Your task to perform on an android device: Open wifi settings Image 0: 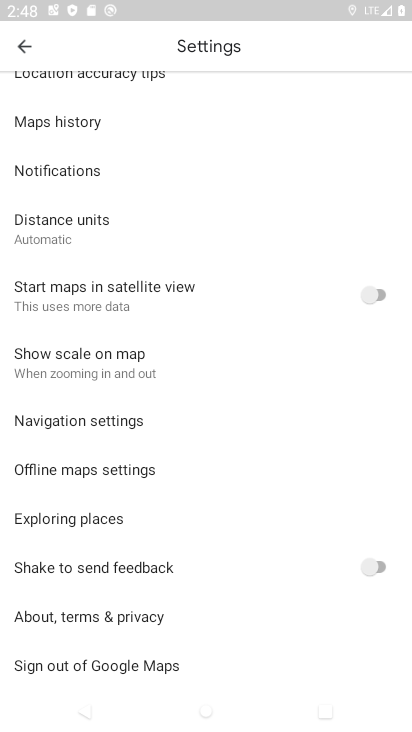
Step 0: drag from (162, 158) to (268, 656)
Your task to perform on an android device: Open wifi settings Image 1: 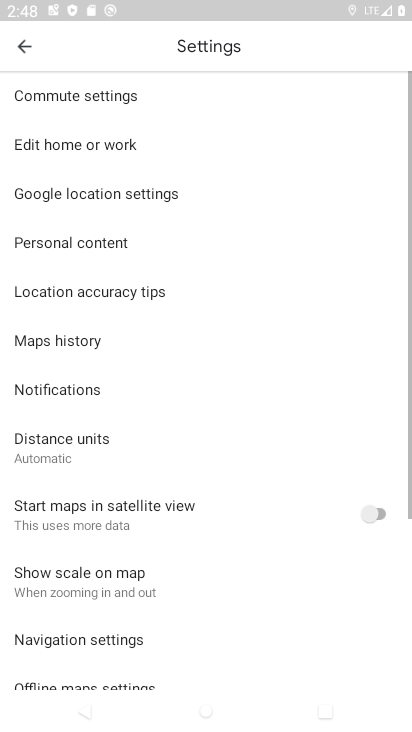
Step 1: drag from (249, 635) to (16, 272)
Your task to perform on an android device: Open wifi settings Image 2: 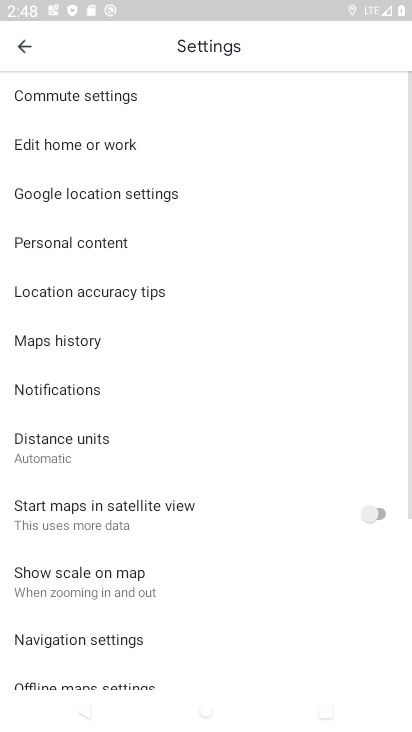
Step 2: drag from (212, 623) to (297, 39)
Your task to perform on an android device: Open wifi settings Image 3: 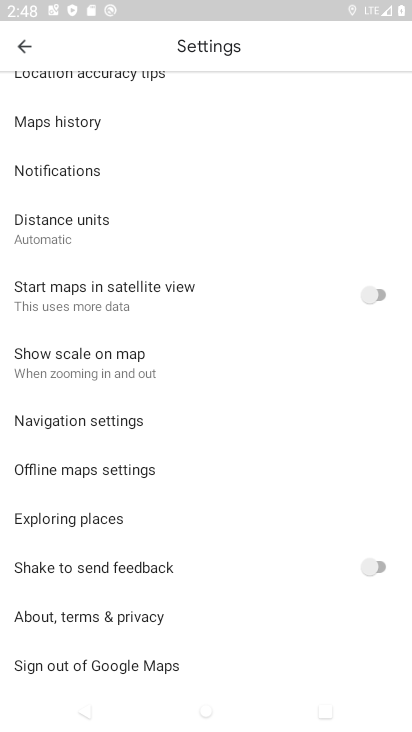
Step 3: drag from (253, 648) to (253, 317)
Your task to perform on an android device: Open wifi settings Image 4: 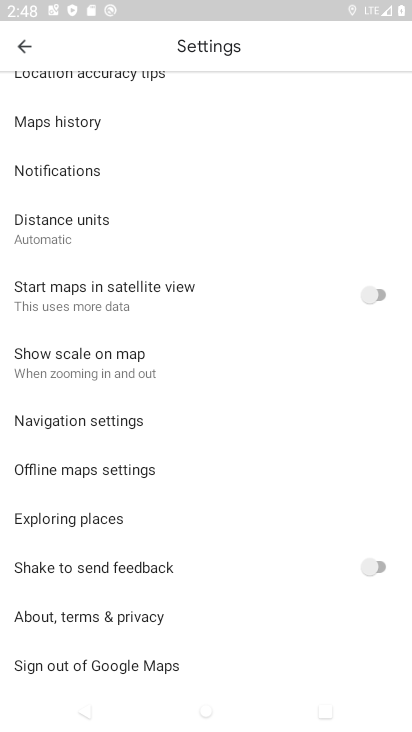
Step 4: drag from (273, 227) to (409, 724)
Your task to perform on an android device: Open wifi settings Image 5: 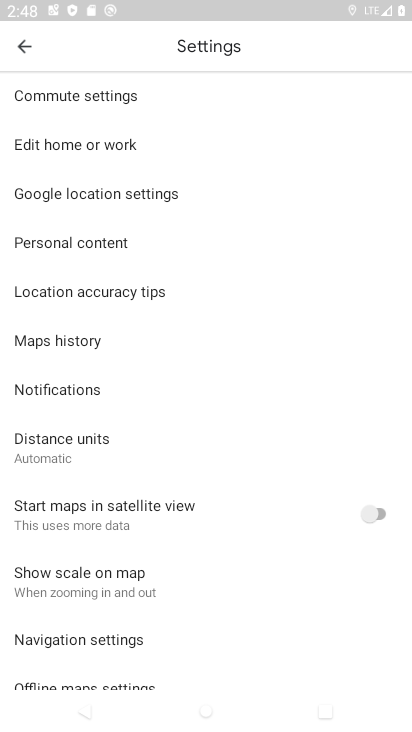
Step 5: press back button
Your task to perform on an android device: Open wifi settings Image 6: 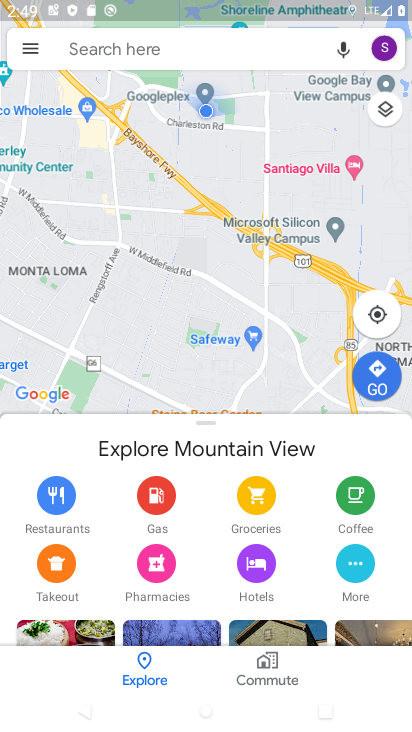
Step 6: press home button
Your task to perform on an android device: Open wifi settings Image 7: 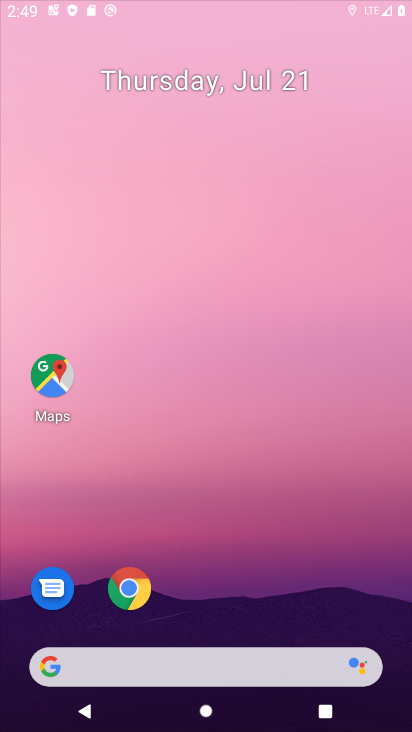
Step 7: drag from (228, 573) to (294, 131)
Your task to perform on an android device: Open wifi settings Image 8: 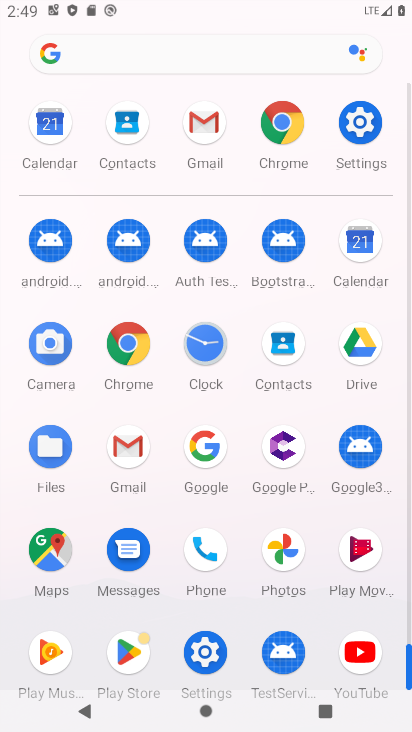
Step 8: click (345, 119)
Your task to perform on an android device: Open wifi settings Image 9: 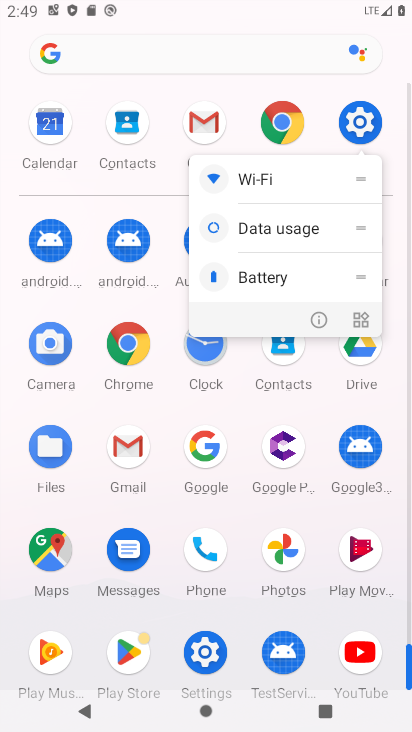
Step 9: click (281, 182)
Your task to perform on an android device: Open wifi settings Image 10: 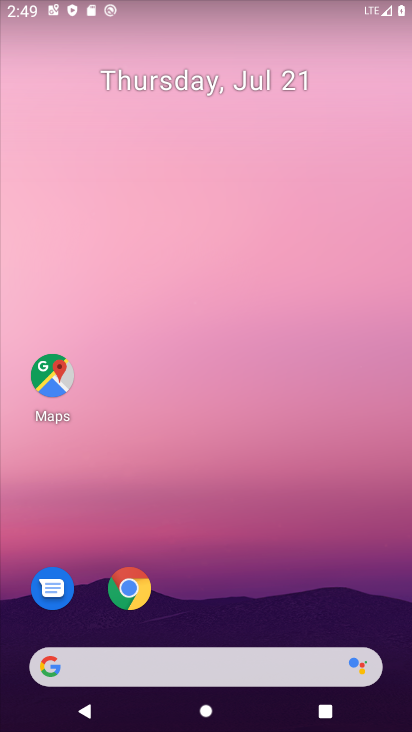
Step 10: drag from (171, 630) to (294, 159)
Your task to perform on an android device: Open wifi settings Image 11: 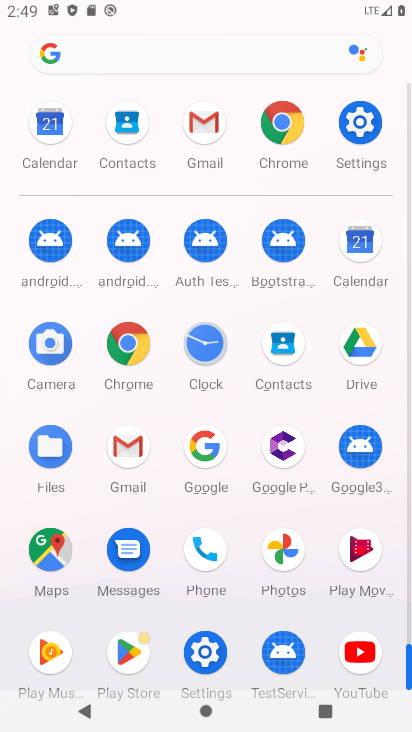
Step 11: click (382, 126)
Your task to perform on an android device: Open wifi settings Image 12: 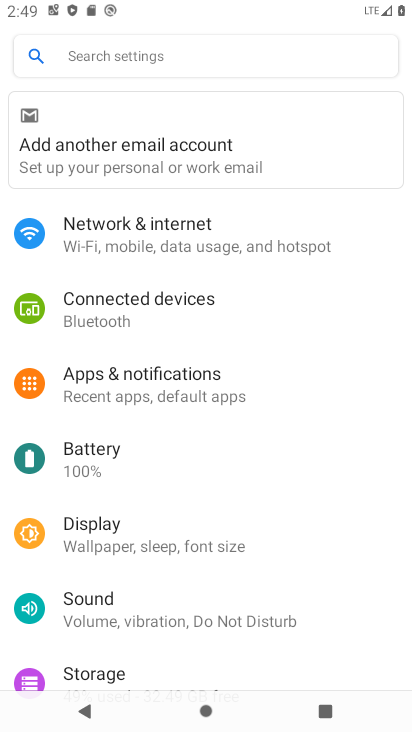
Step 12: click (106, 251)
Your task to perform on an android device: Open wifi settings Image 13: 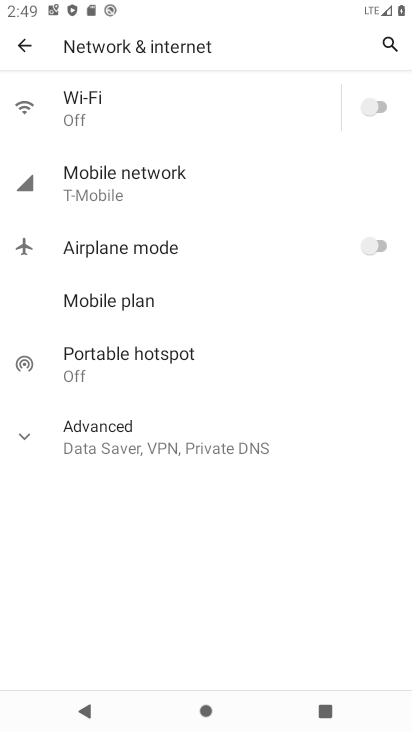
Step 13: click (212, 114)
Your task to perform on an android device: Open wifi settings Image 14: 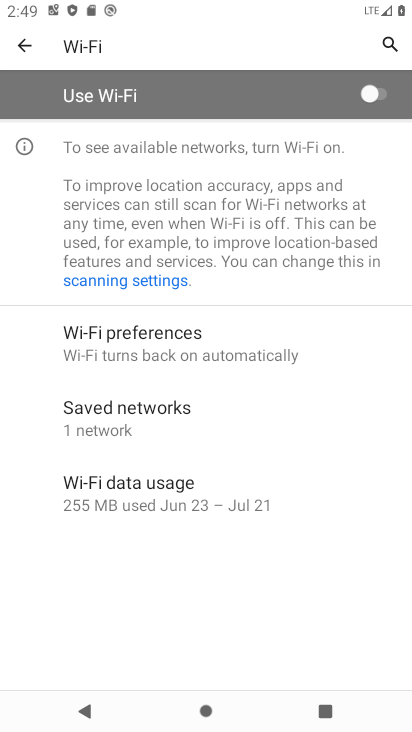
Step 14: task complete